Your task to perform on an android device: Show me the alarms in the clock app Image 0: 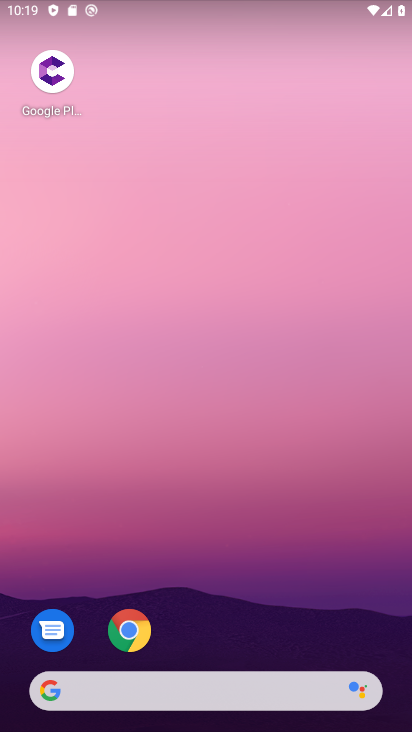
Step 0: drag from (214, 641) to (297, 142)
Your task to perform on an android device: Show me the alarms in the clock app Image 1: 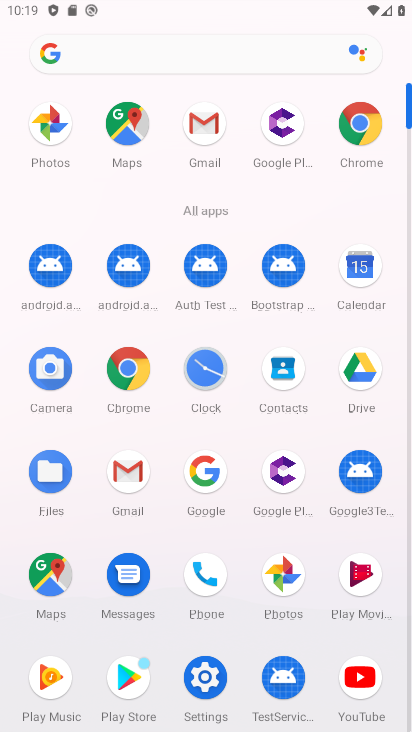
Step 1: click (202, 365)
Your task to perform on an android device: Show me the alarms in the clock app Image 2: 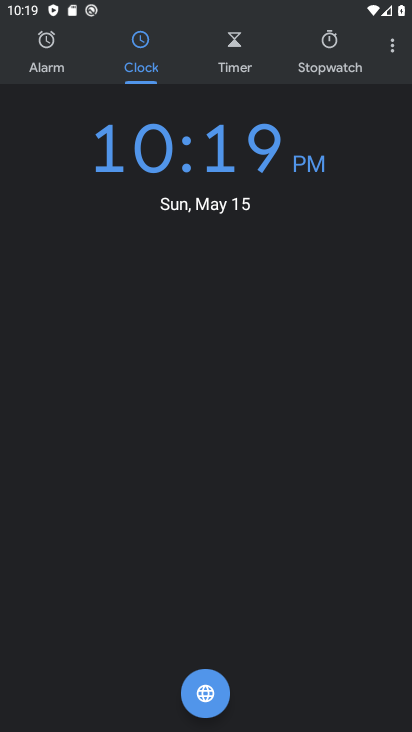
Step 2: click (46, 49)
Your task to perform on an android device: Show me the alarms in the clock app Image 3: 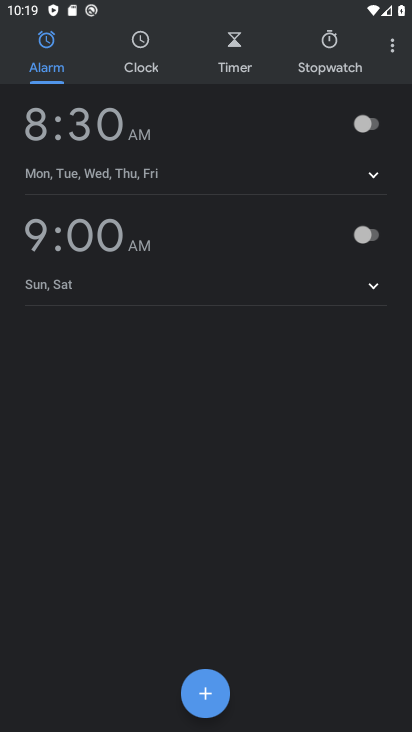
Step 3: task complete